Your task to perform on an android device: turn on javascript in the chrome app Image 0: 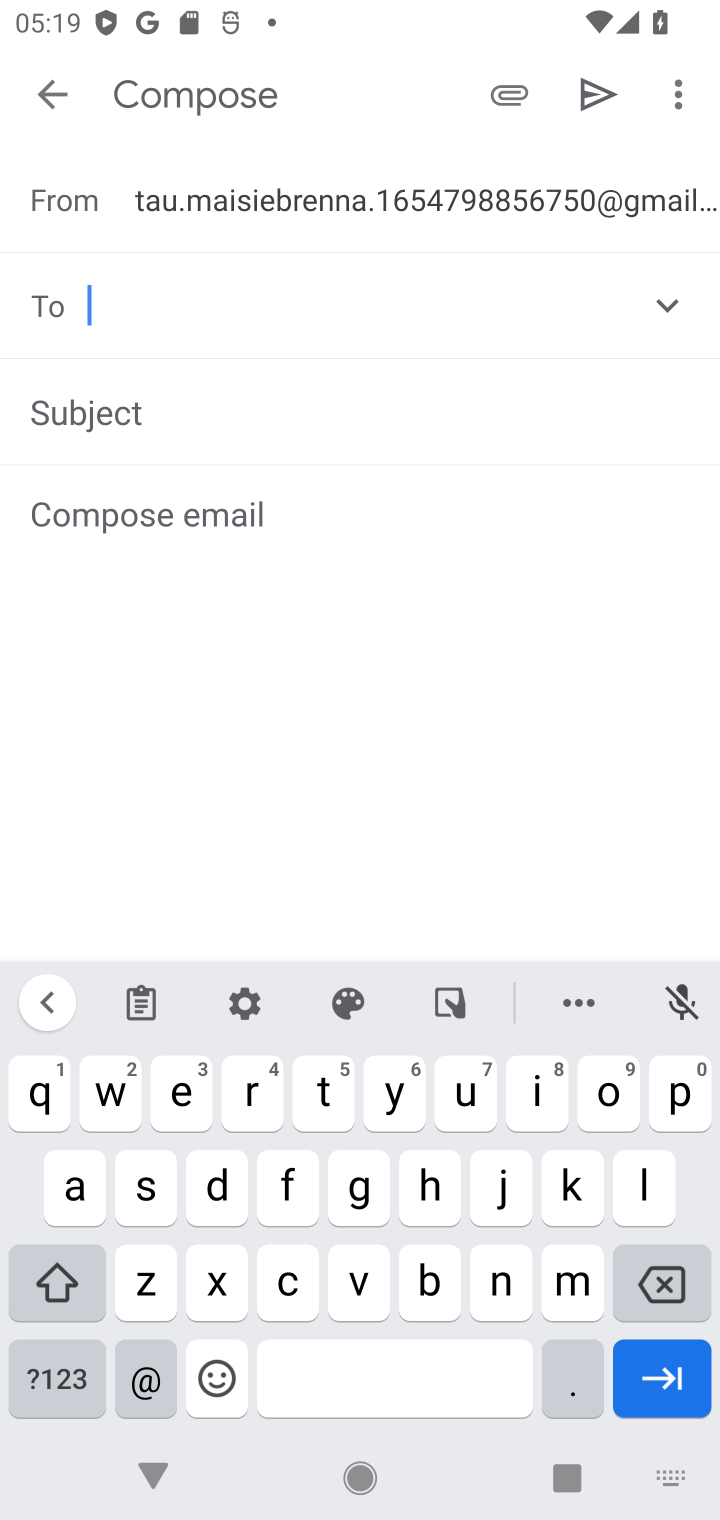
Step 0: press home button
Your task to perform on an android device: turn on javascript in the chrome app Image 1: 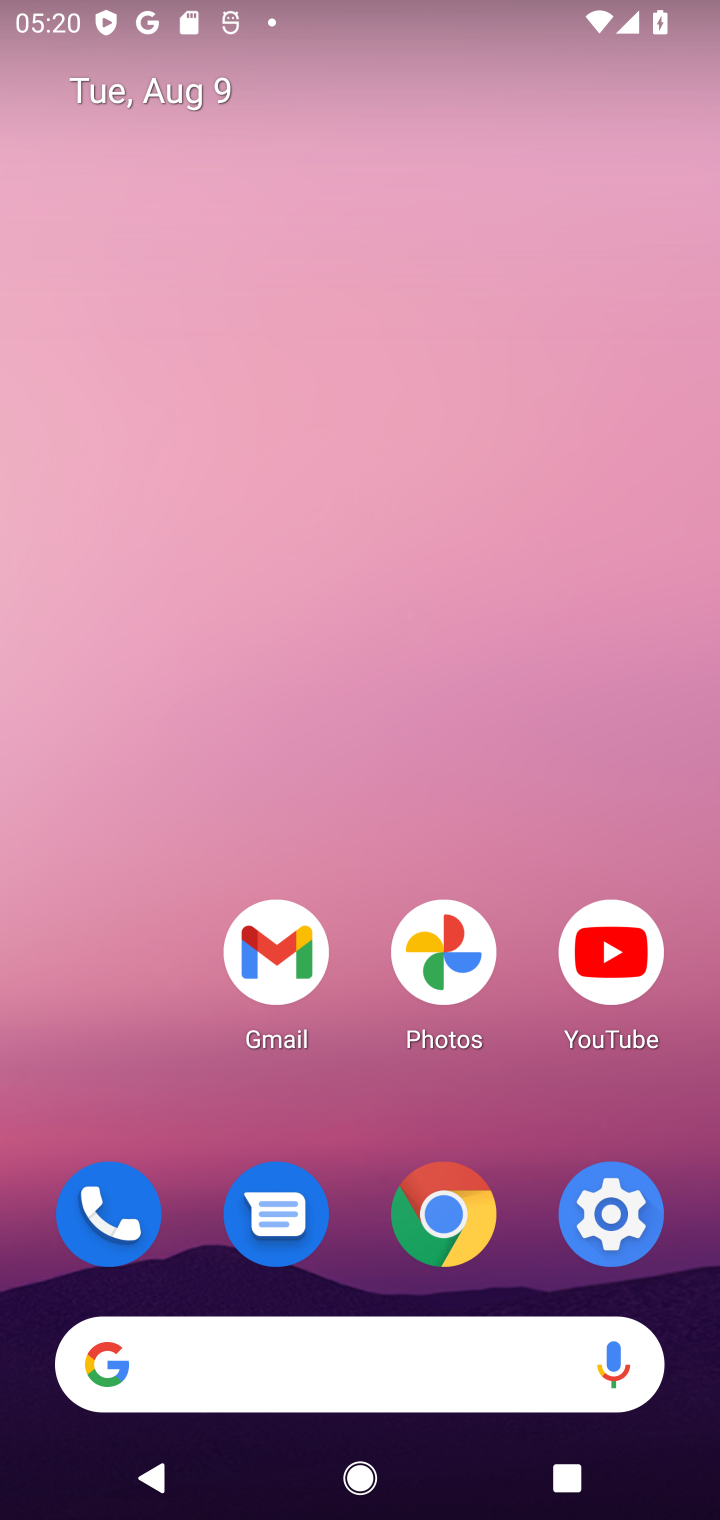
Step 1: click (416, 1212)
Your task to perform on an android device: turn on javascript in the chrome app Image 2: 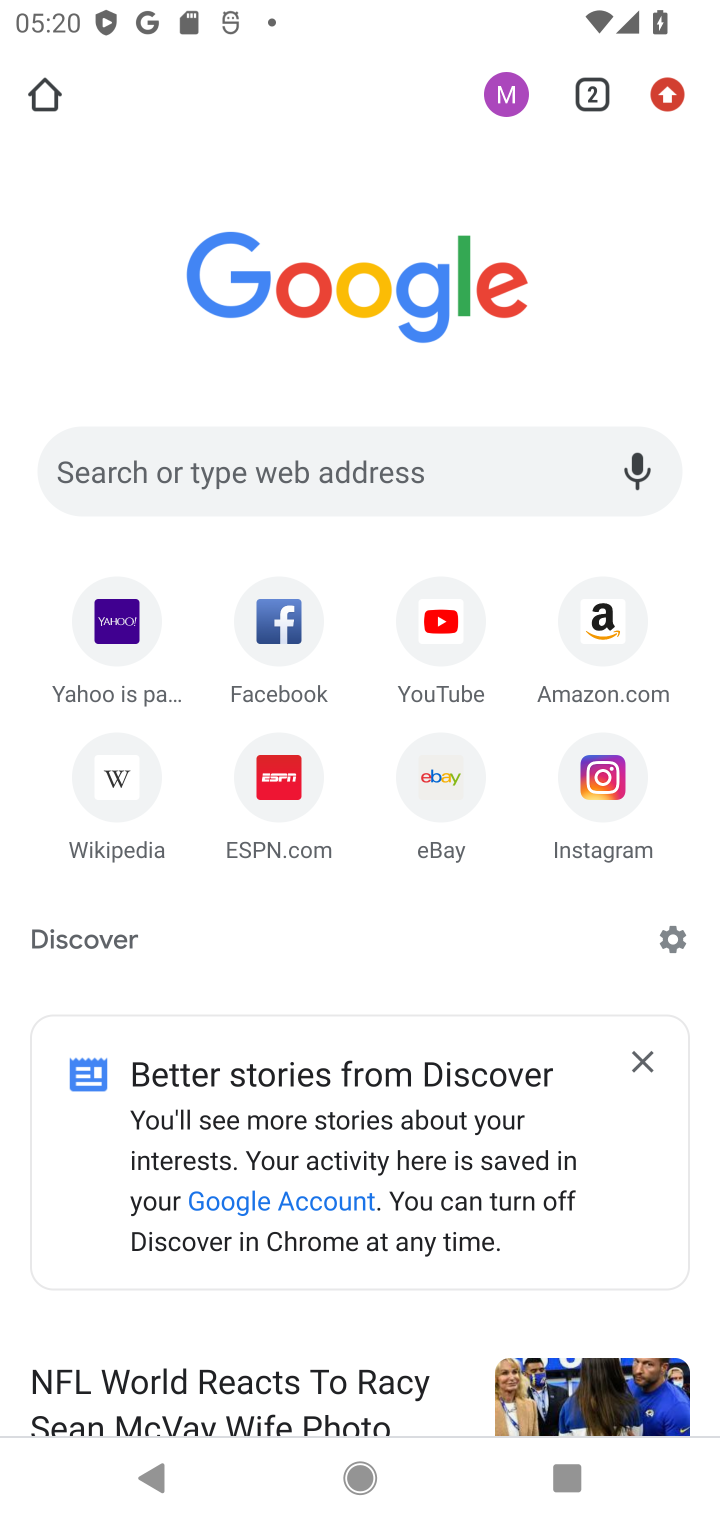
Step 2: click (660, 108)
Your task to perform on an android device: turn on javascript in the chrome app Image 3: 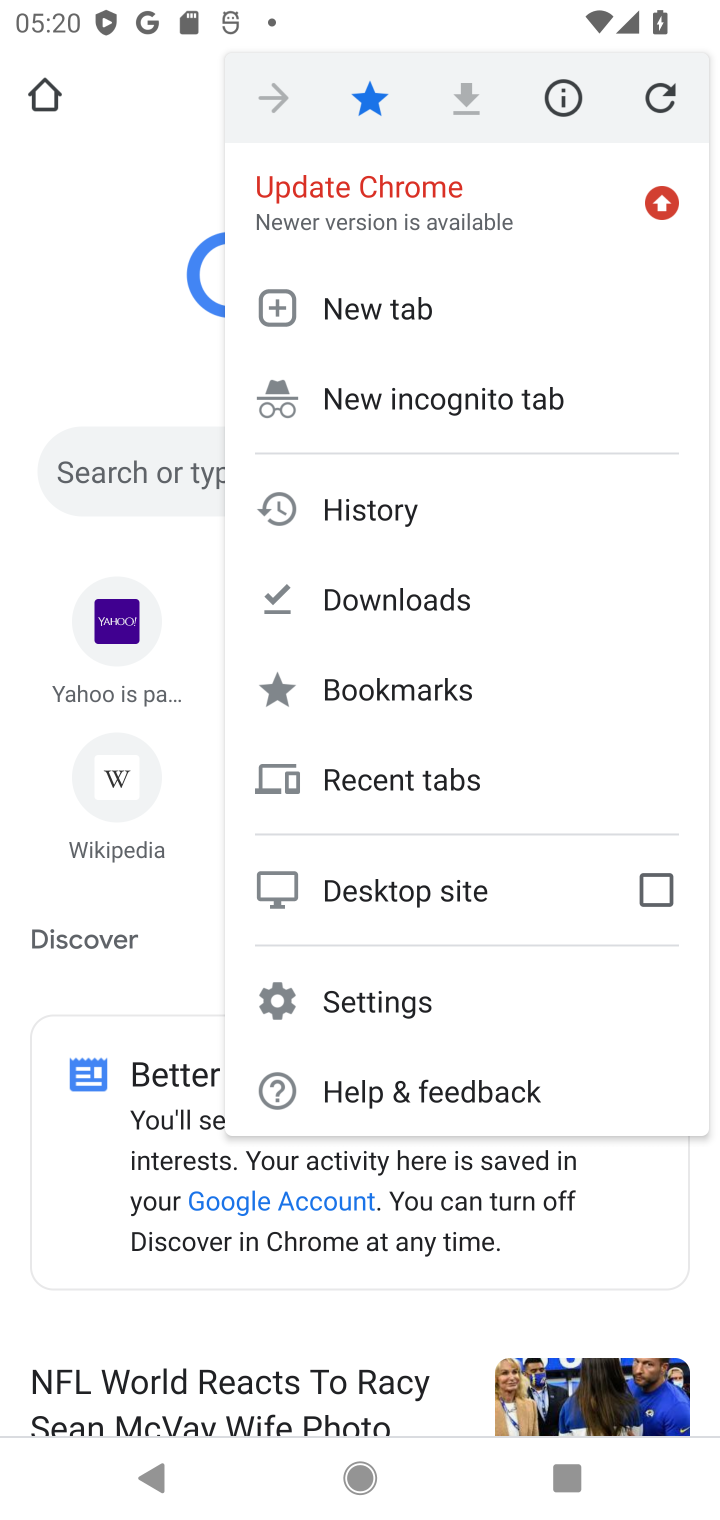
Step 3: click (374, 996)
Your task to perform on an android device: turn on javascript in the chrome app Image 4: 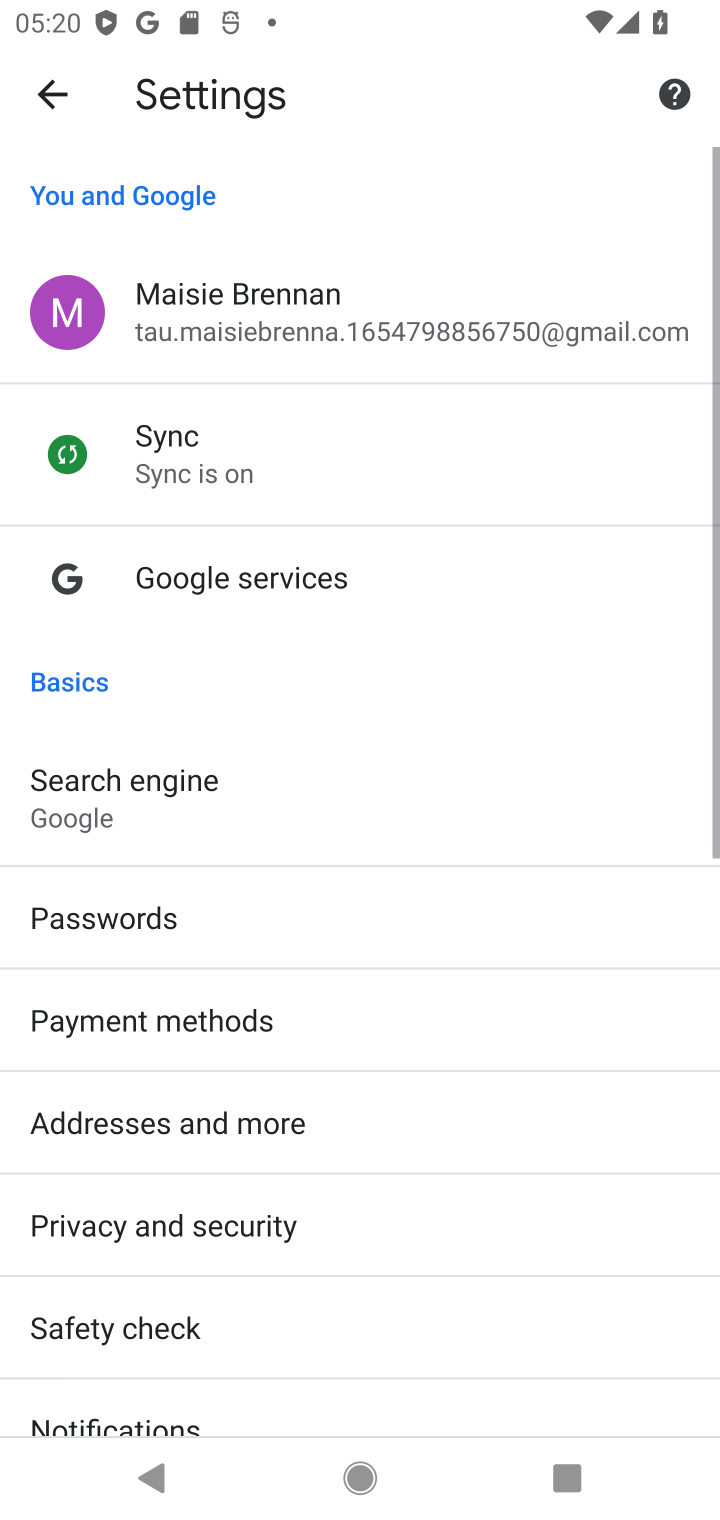
Step 4: drag from (213, 1414) to (216, 1048)
Your task to perform on an android device: turn on javascript in the chrome app Image 5: 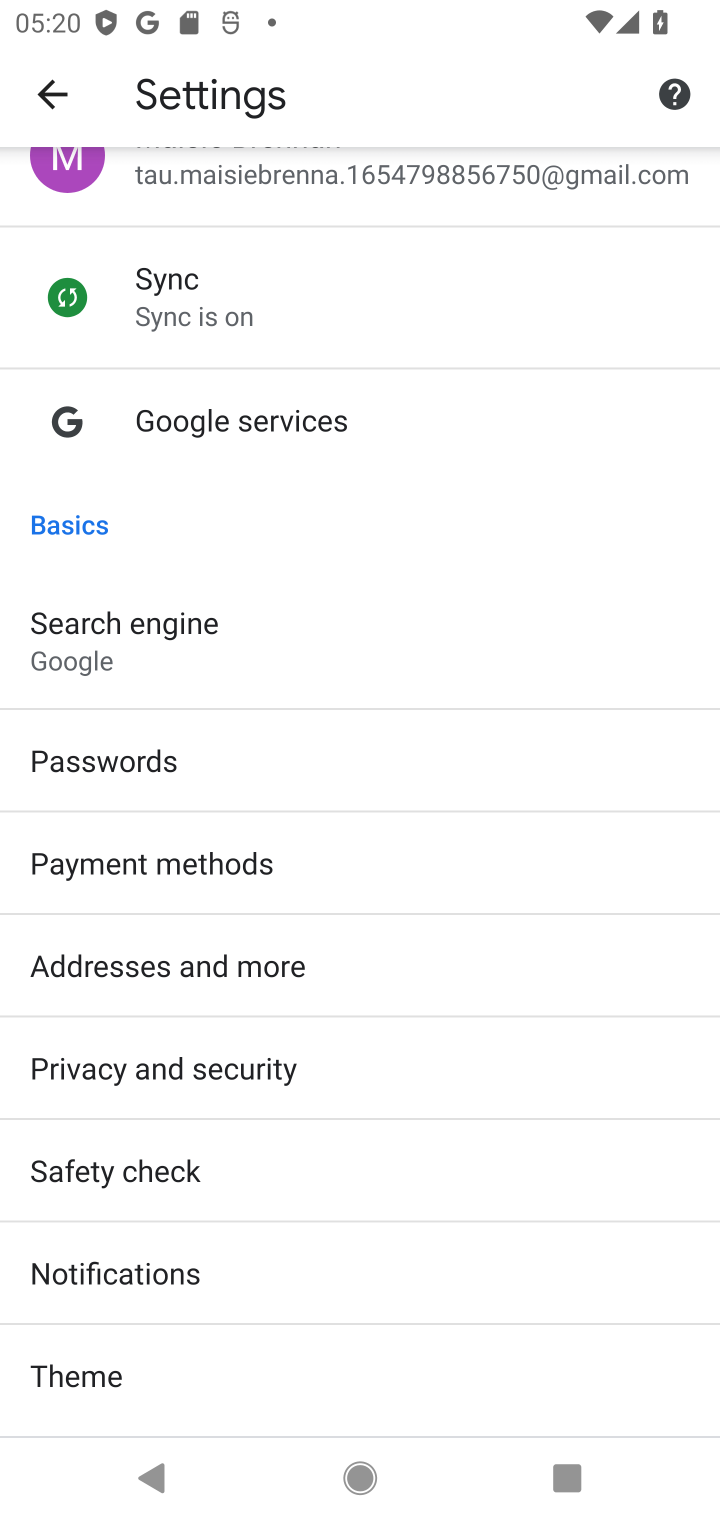
Step 5: drag from (208, 1280) to (211, 950)
Your task to perform on an android device: turn on javascript in the chrome app Image 6: 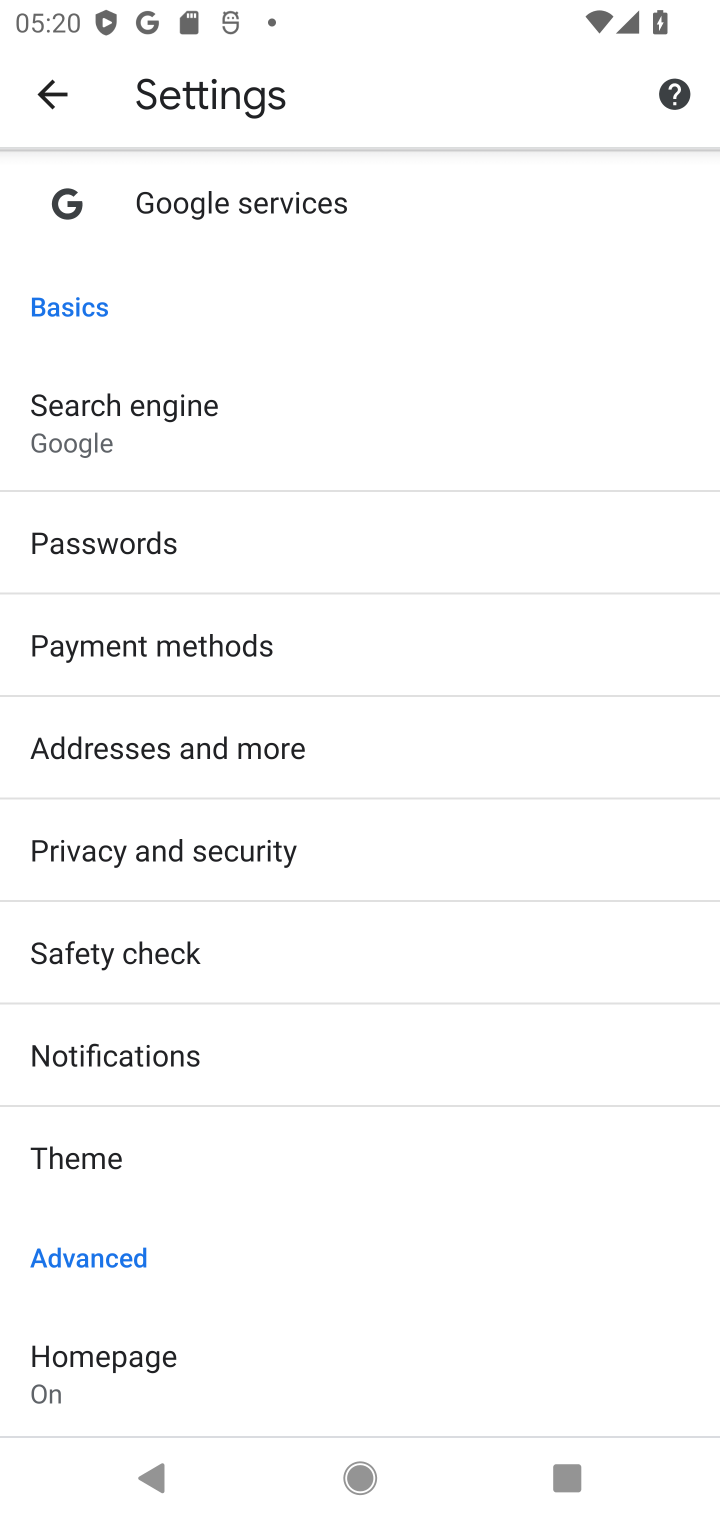
Step 6: drag from (178, 1282) to (197, 979)
Your task to perform on an android device: turn on javascript in the chrome app Image 7: 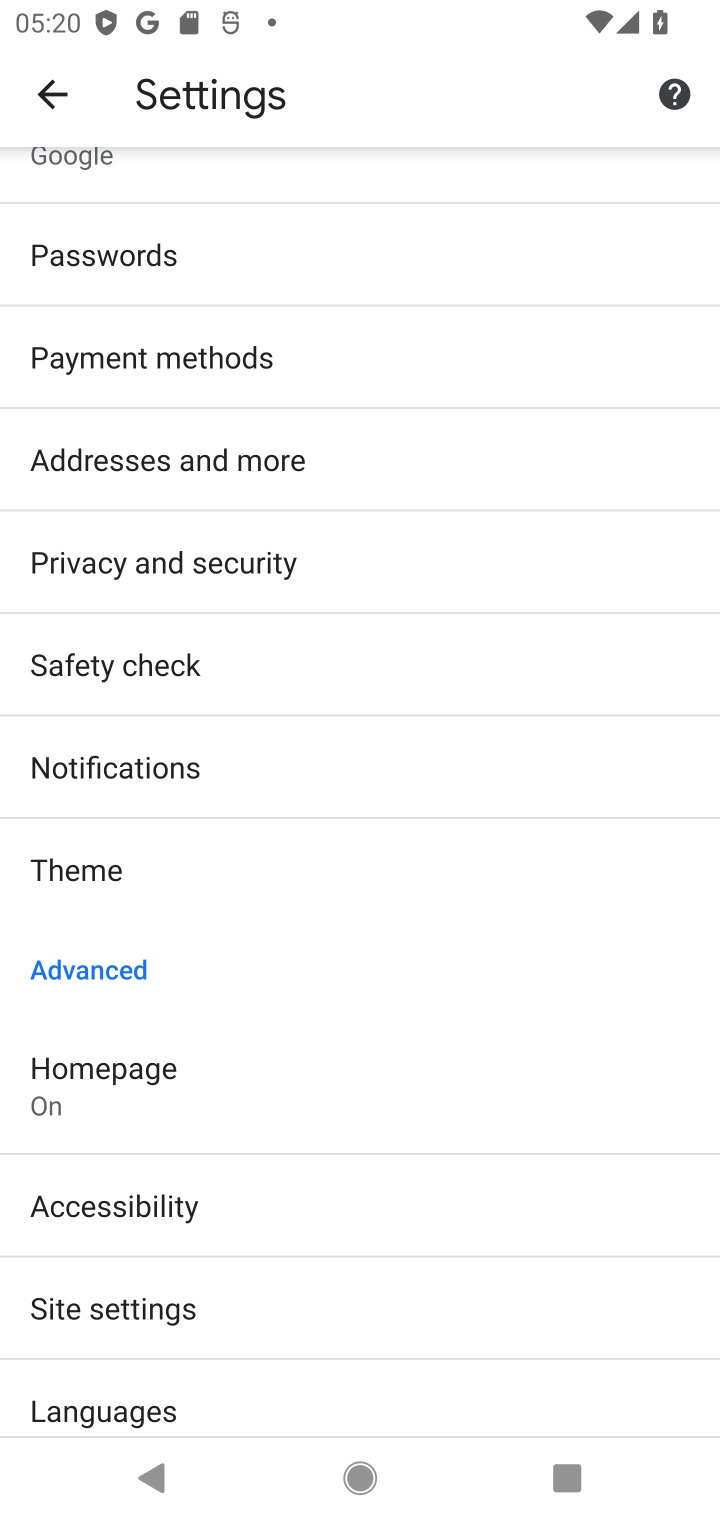
Step 7: click (115, 1324)
Your task to perform on an android device: turn on javascript in the chrome app Image 8: 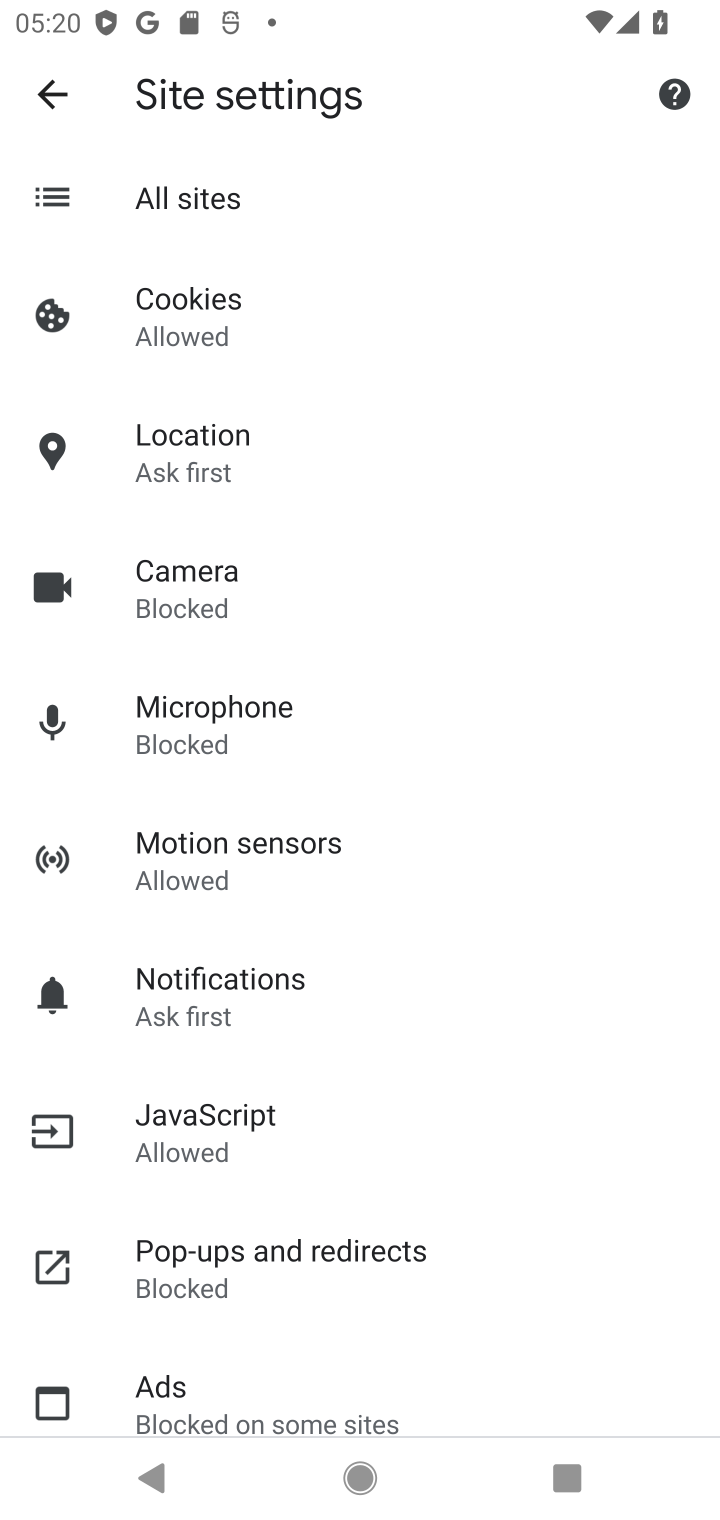
Step 8: click (273, 1102)
Your task to perform on an android device: turn on javascript in the chrome app Image 9: 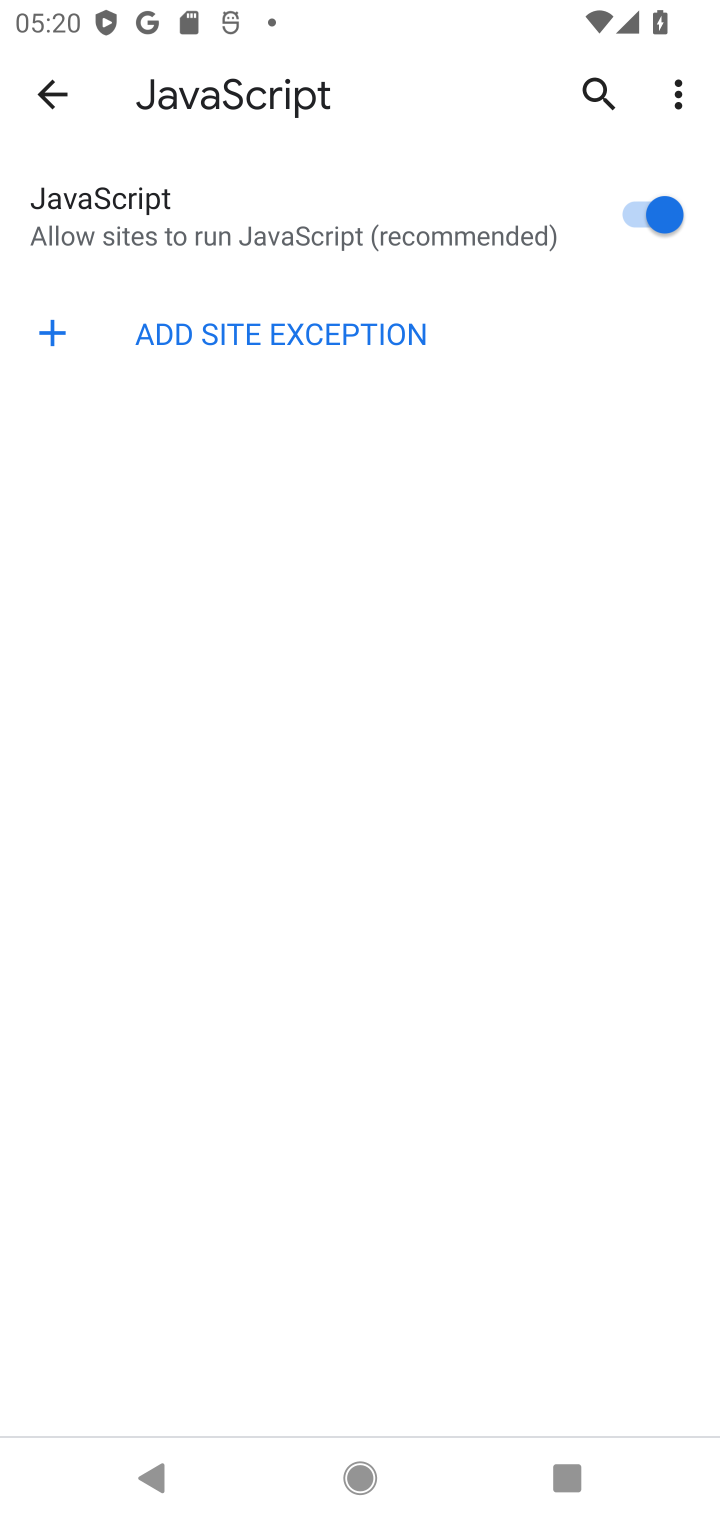
Step 9: task complete